Your task to perform on an android device: delete location history Image 0: 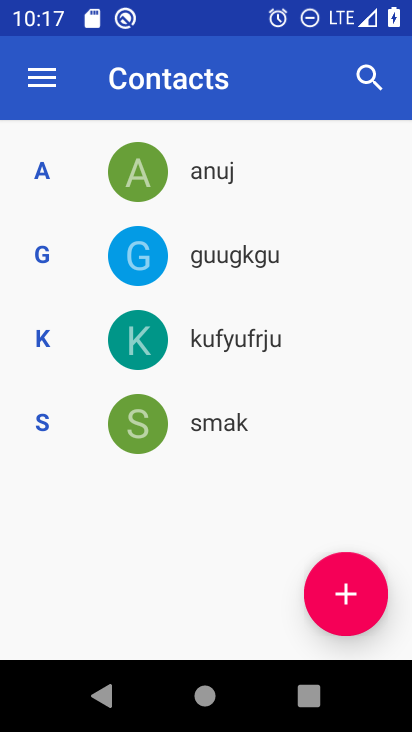
Step 0: press home button
Your task to perform on an android device: delete location history Image 1: 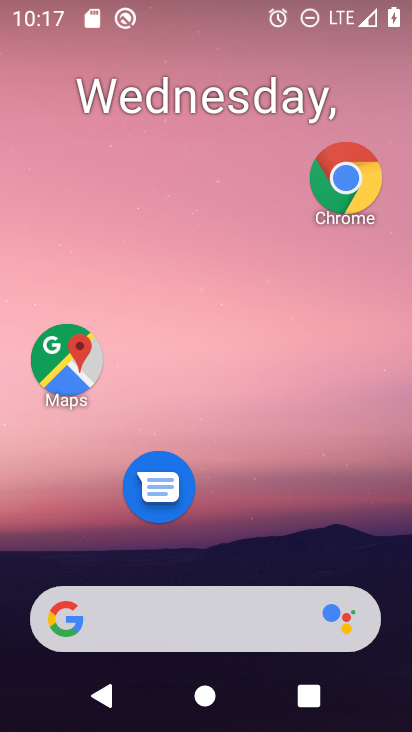
Step 1: drag from (290, 618) to (330, 90)
Your task to perform on an android device: delete location history Image 2: 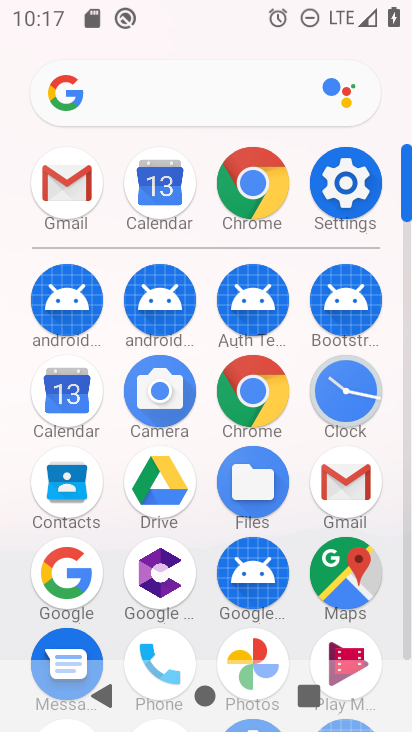
Step 2: drag from (232, 498) to (264, 272)
Your task to perform on an android device: delete location history Image 3: 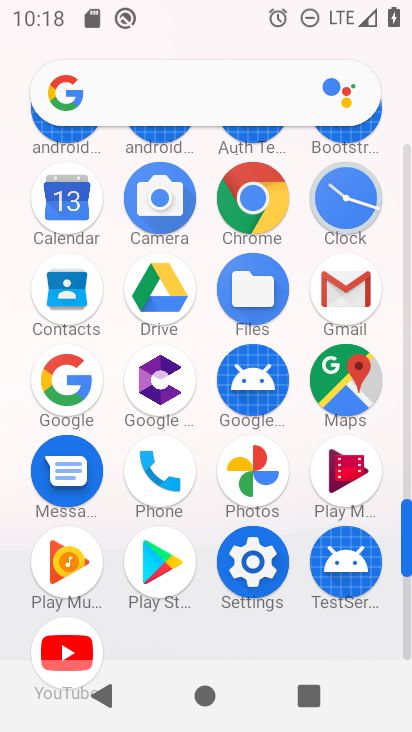
Step 3: click (250, 581)
Your task to perform on an android device: delete location history Image 4: 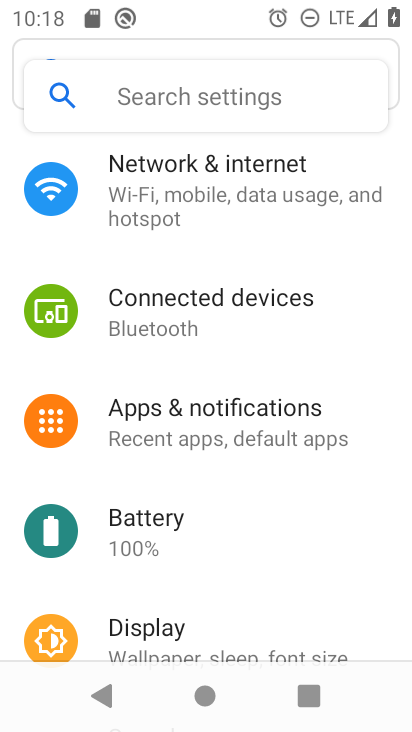
Step 4: drag from (199, 583) to (286, 292)
Your task to perform on an android device: delete location history Image 5: 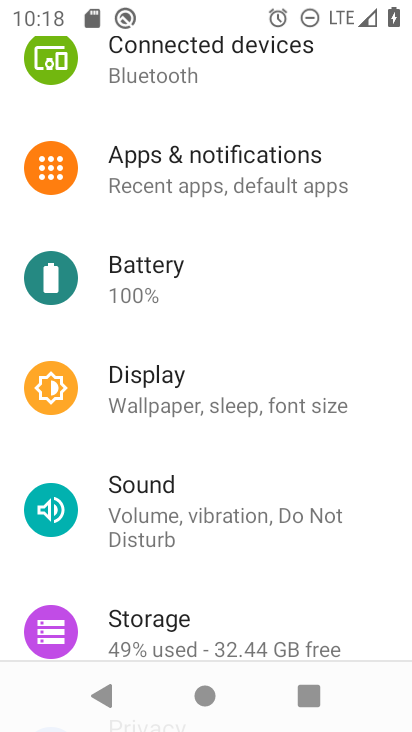
Step 5: drag from (169, 500) to (222, 129)
Your task to perform on an android device: delete location history Image 6: 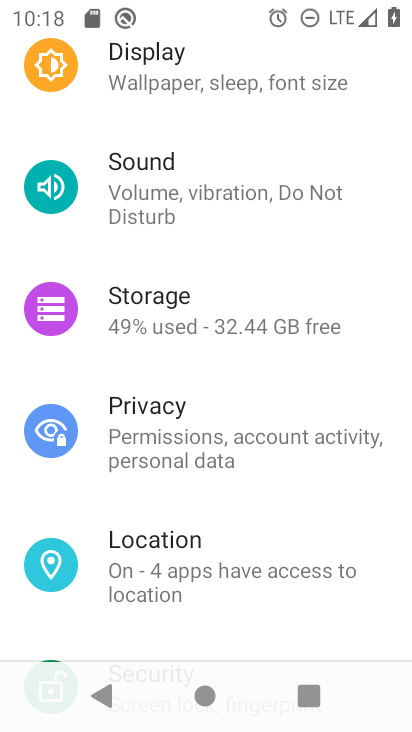
Step 6: click (186, 577)
Your task to perform on an android device: delete location history Image 7: 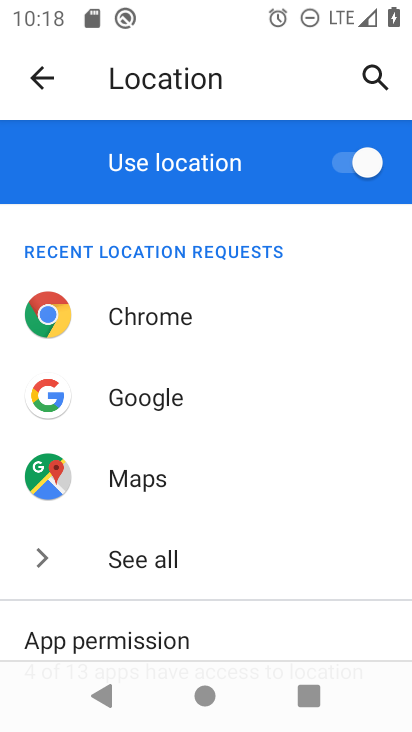
Step 7: drag from (204, 627) to (205, 214)
Your task to perform on an android device: delete location history Image 8: 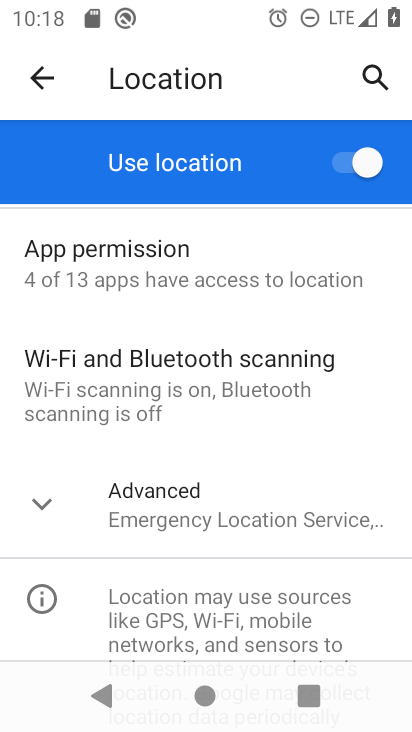
Step 8: click (215, 522)
Your task to perform on an android device: delete location history Image 9: 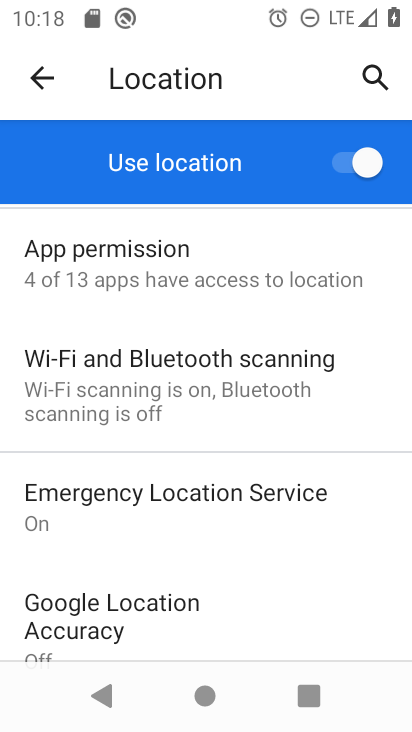
Step 9: drag from (205, 613) to (203, 211)
Your task to perform on an android device: delete location history Image 10: 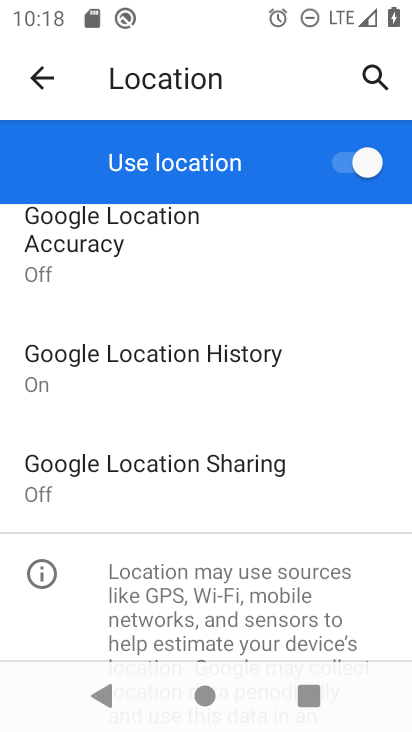
Step 10: click (219, 373)
Your task to perform on an android device: delete location history Image 11: 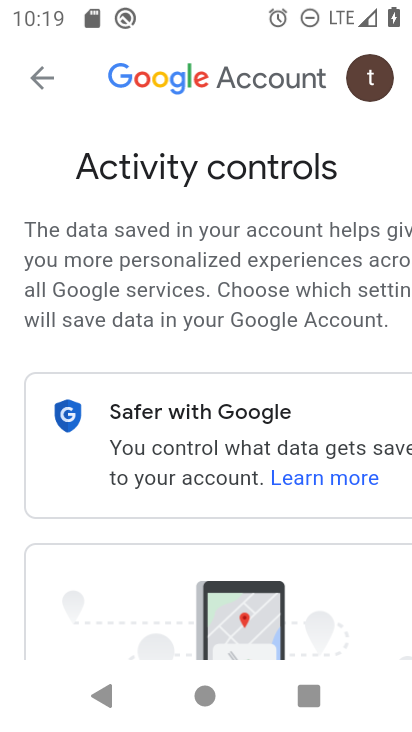
Step 11: drag from (246, 600) to (131, 204)
Your task to perform on an android device: delete location history Image 12: 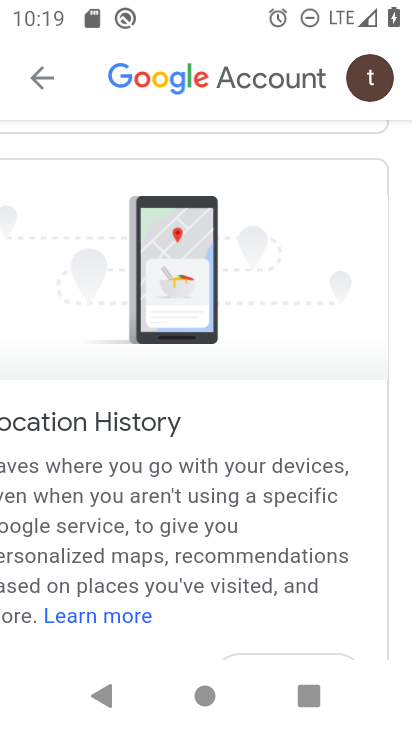
Step 12: drag from (276, 530) to (159, 196)
Your task to perform on an android device: delete location history Image 13: 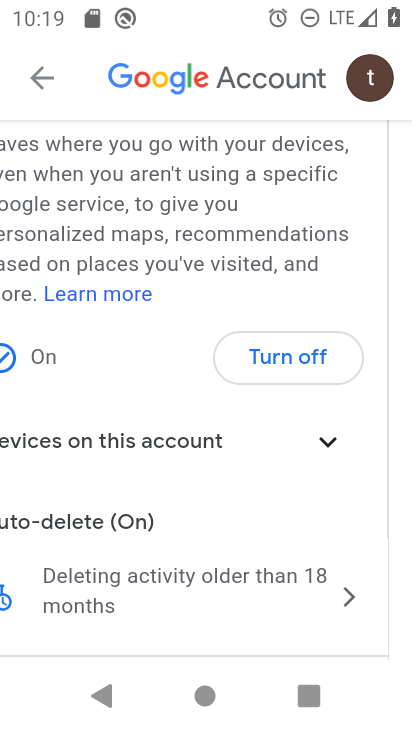
Step 13: click (275, 624)
Your task to perform on an android device: delete location history Image 14: 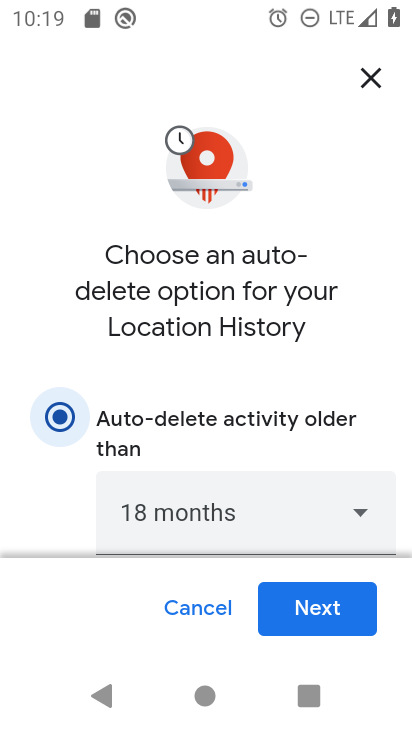
Step 14: click (302, 616)
Your task to perform on an android device: delete location history Image 15: 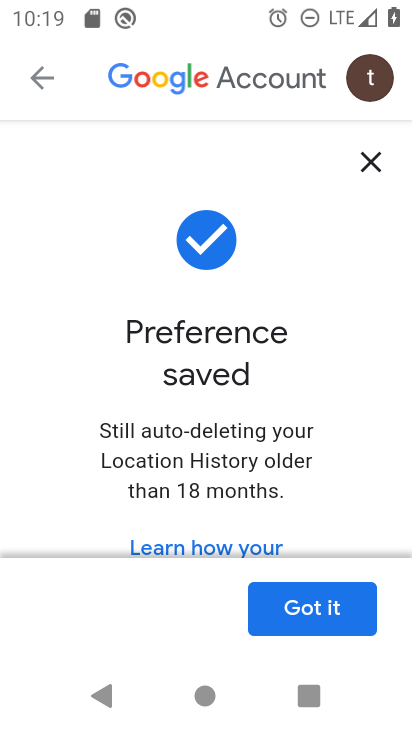
Step 15: click (332, 627)
Your task to perform on an android device: delete location history Image 16: 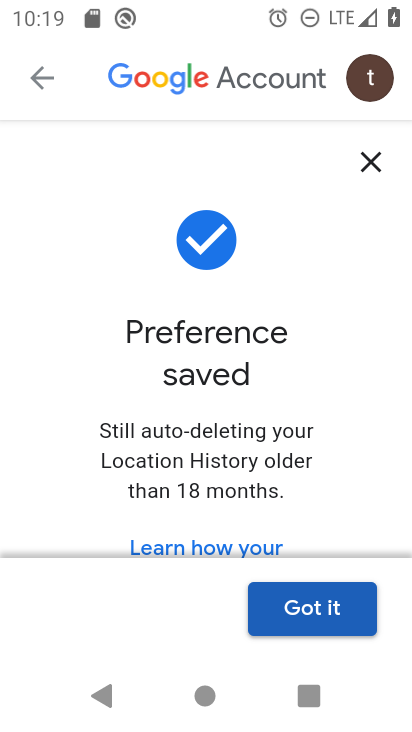
Step 16: click (320, 613)
Your task to perform on an android device: delete location history Image 17: 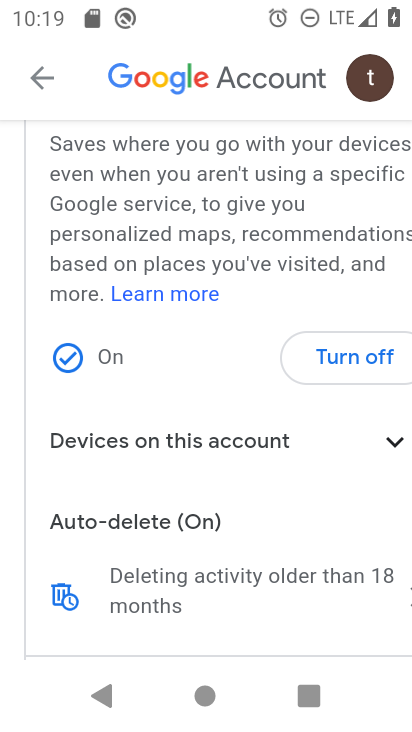
Step 17: task complete